Your task to perform on an android device: read, delete, or share a saved page in the chrome app Image 0: 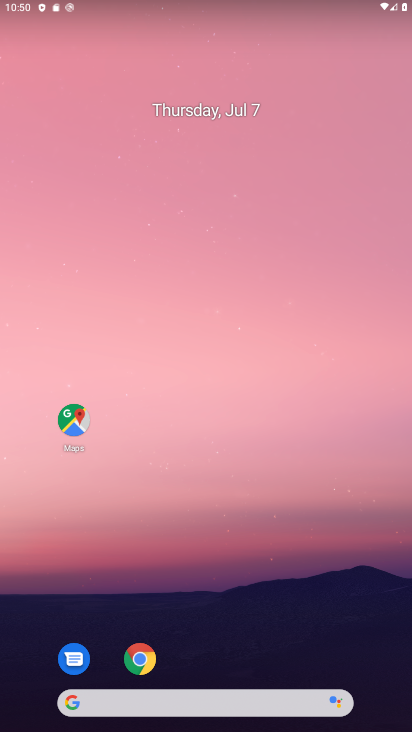
Step 0: press home button
Your task to perform on an android device: read, delete, or share a saved page in the chrome app Image 1: 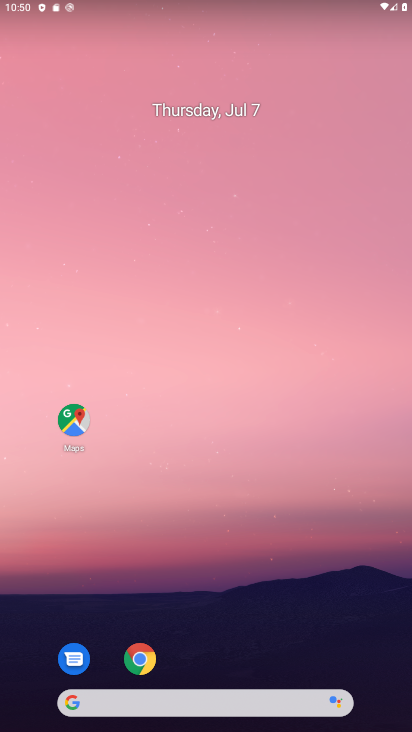
Step 1: drag from (206, 664) to (231, 45)
Your task to perform on an android device: read, delete, or share a saved page in the chrome app Image 2: 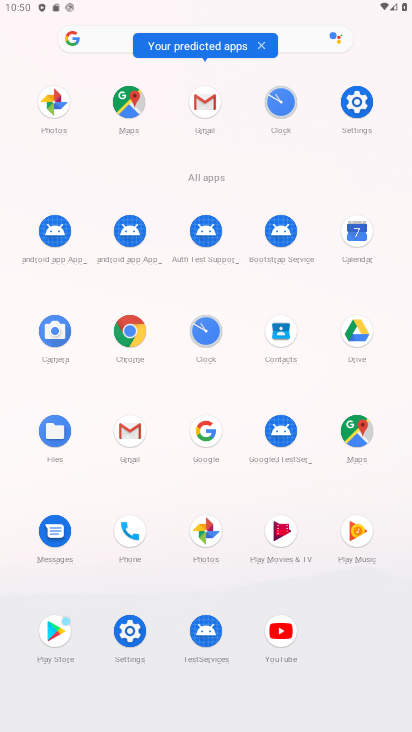
Step 2: click (131, 327)
Your task to perform on an android device: read, delete, or share a saved page in the chrome app Image 3: 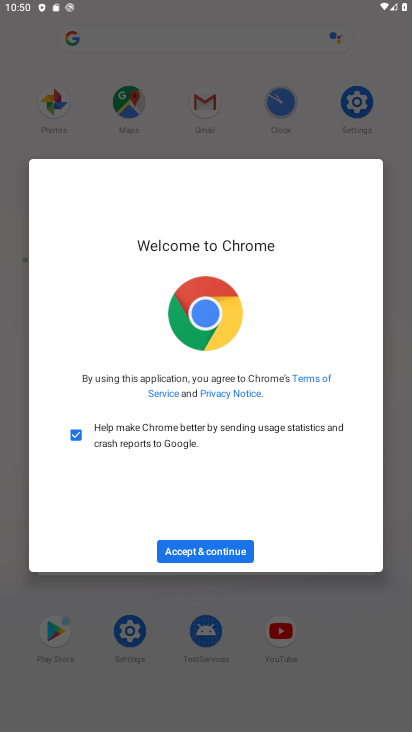
Step 3: click (213, 549)
Your task to perform on an android device: read, delete, or share a saved page in the chrome app Image 4: 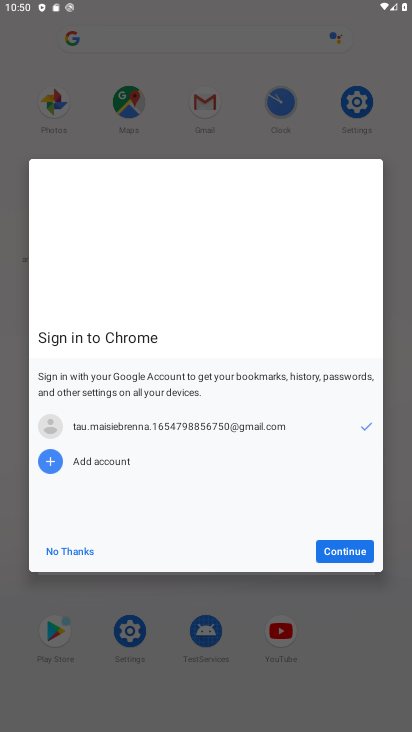
Step 4: click (331, 548)
Your task to perform on an android device: read, delete, or share a saved page in the chrome app Image 5: 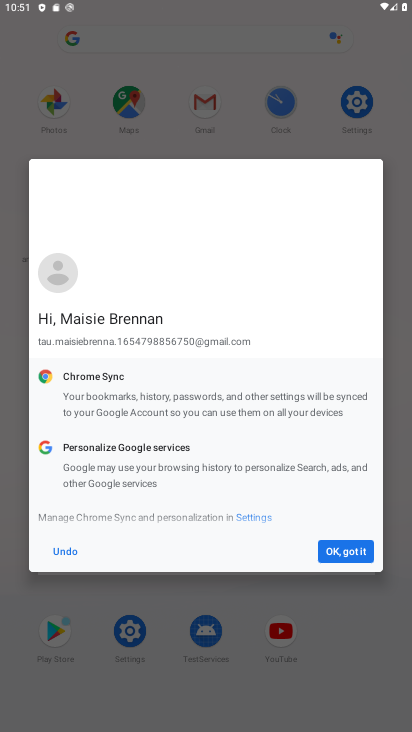
Step 5: click (345, 550)
Your task to perform on an android device: read, delete, or share a saved page in the chrome app Image 6: 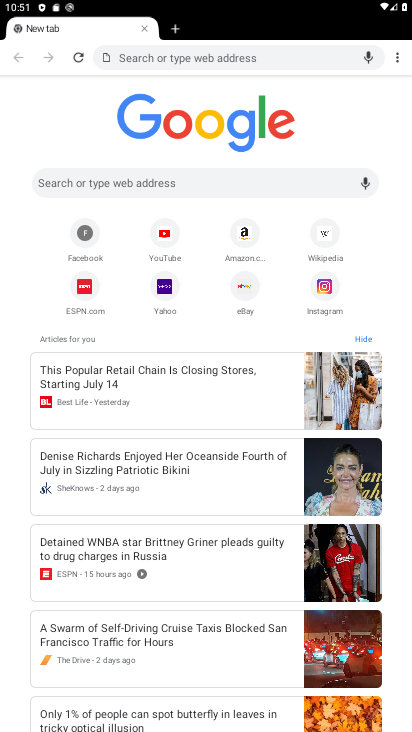
Step 6: click (394, 55)
Your task to perform on an android device: read, delete, or share a saved page in the chrome app Image 7: 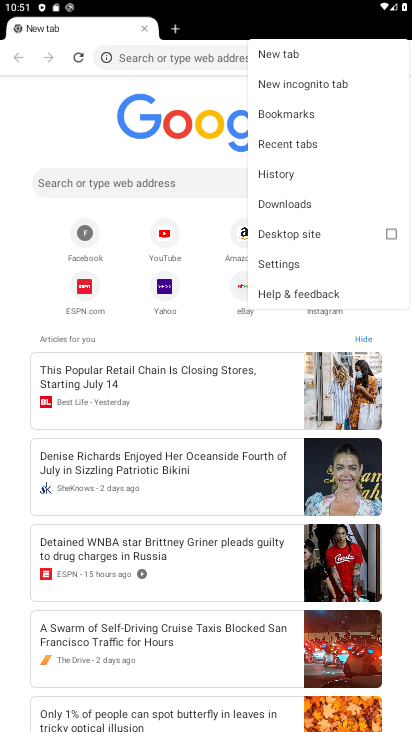
Step 7: click (319, 203)
Your task to perform on an android device: read, delete, or share a saved page in the chrome app Image 8: 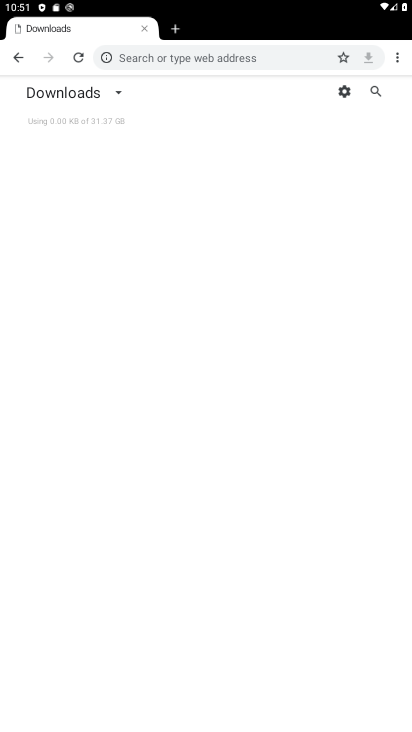
Step 8: task complete